Your task to perform on an android device: change keyboard looks Image 0: 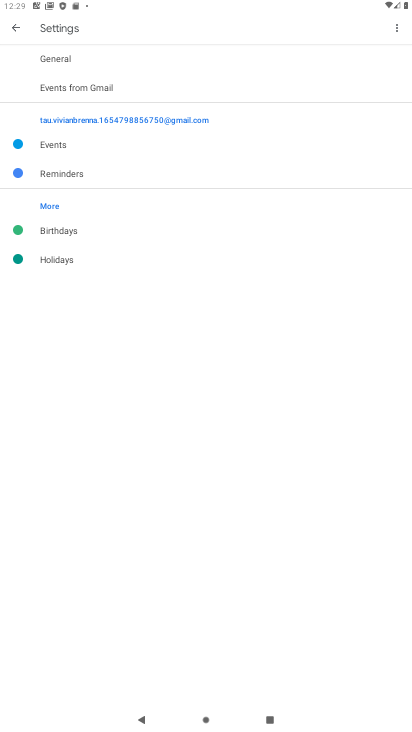
Step 0: press home button
Your task to perform on an android device: change keyboard looks Image 1: 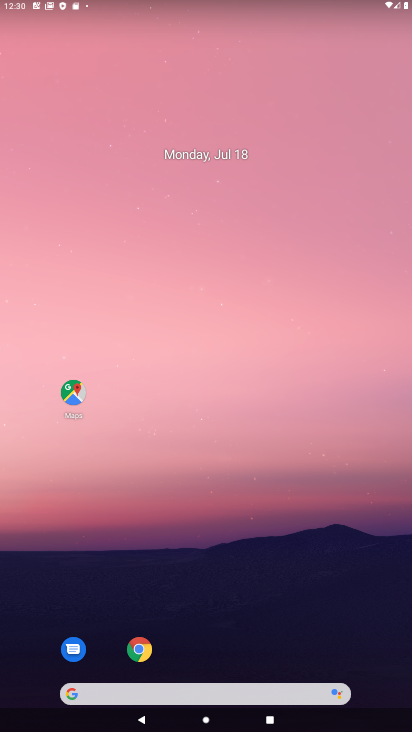
Step 1: drag from (336, 648) to (334, 180)
Your task to perform on an android device: change keyboard looks Image 2: 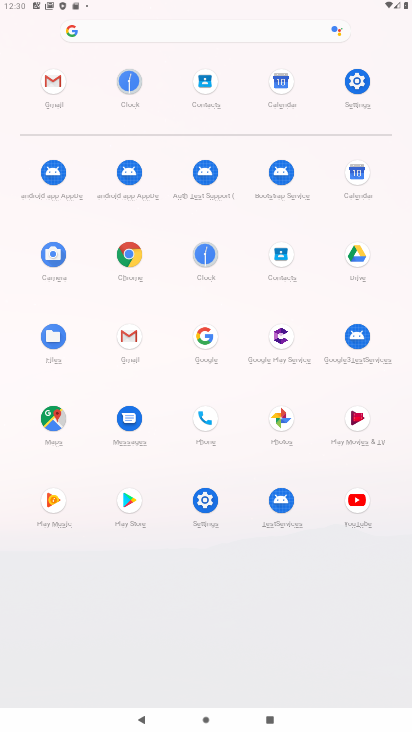
Step 2: click (207, 500)
Your task to perform on an android device: change keyboard looks Image 3: 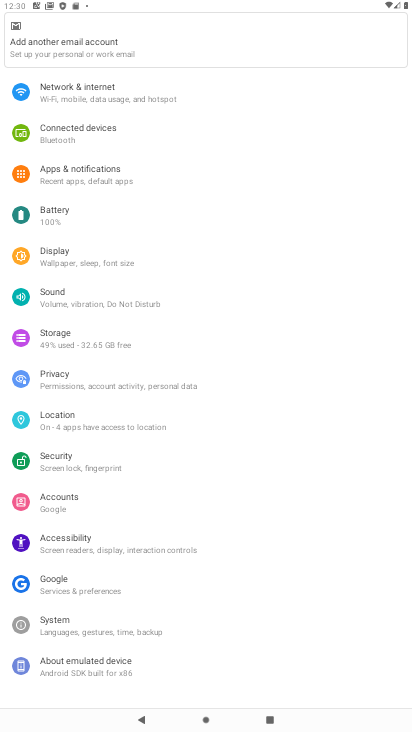
Step 3: click (71, 623)
Your task to perform on an android device: change keyboard looks Image 4: 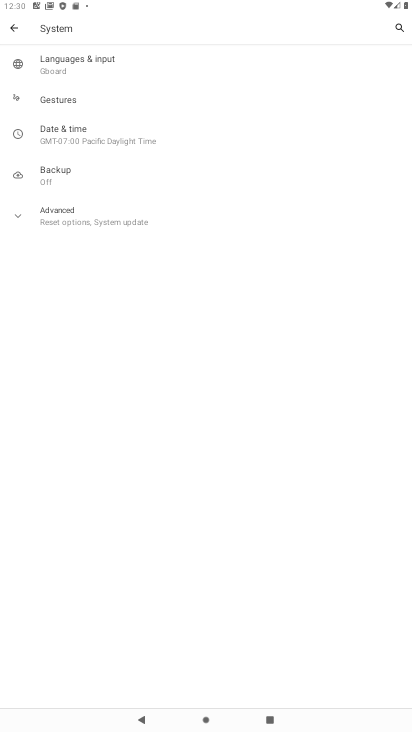
Step 4: click (58, 65)
Your task to perform on an android device: change keyboard looks Image 5: 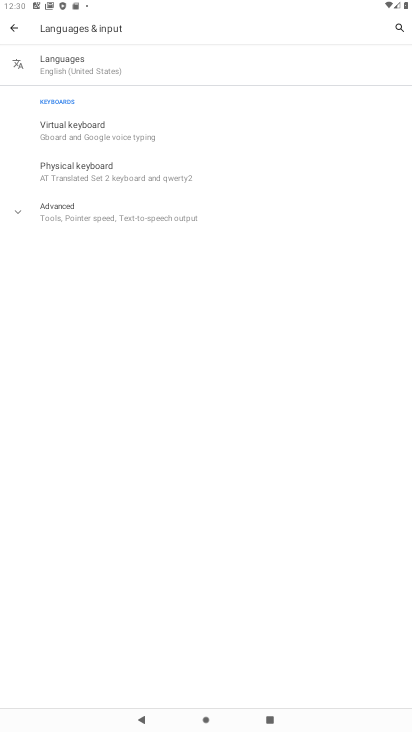
Step 5: click (57, 169)
Your task to perform on an android device: change keyboard looks Image 6: 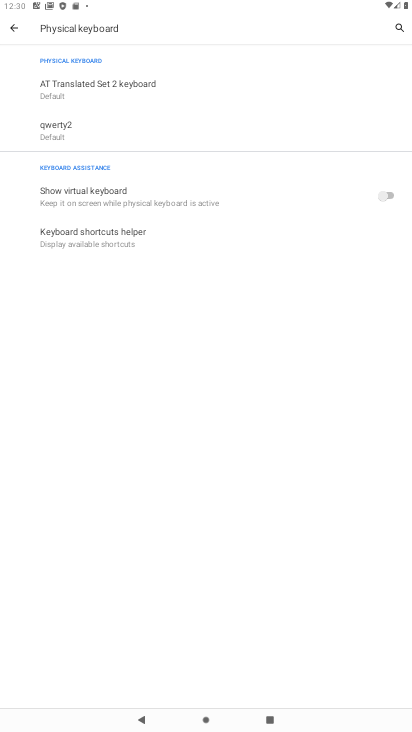
Step 6: click (53, 136)
Your task to perform on an android device: change keyboard looks Image 7: 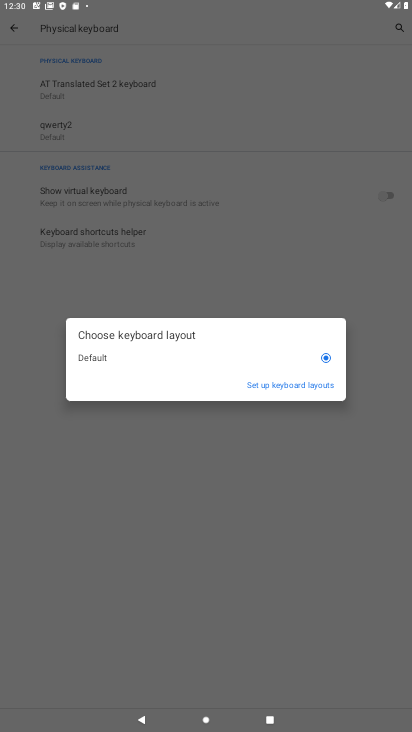
Step 7: click (302, 385)
Your task to perform on an android device: change keyboard looks Image 8: 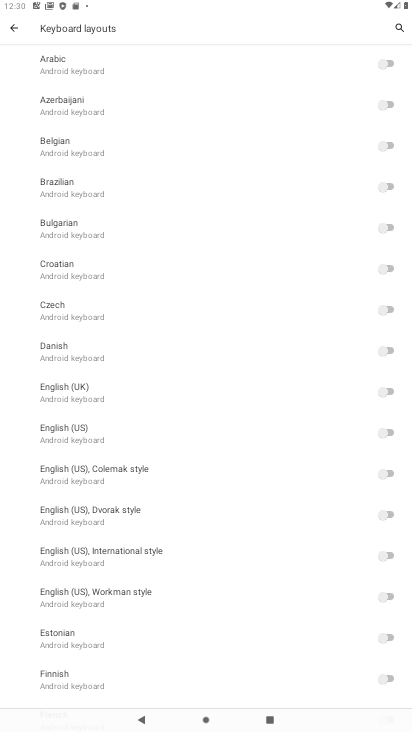
Step 8: click (390, 429)
Your task to perform on an android device: change keyboard looks Image 9: 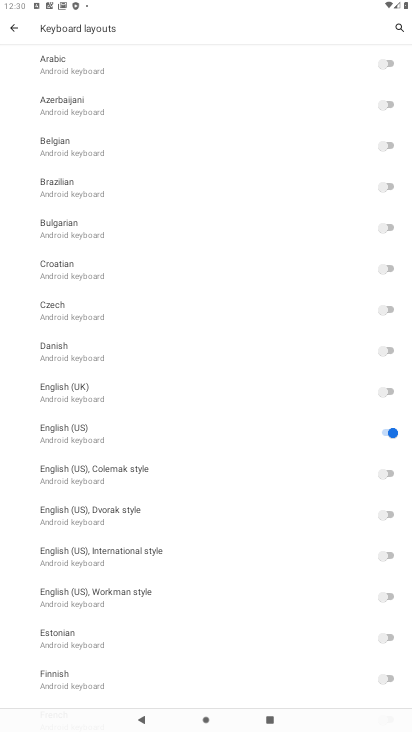
Step 9: task complete